Your task to perform on an android device: What is the news today? Image 0: 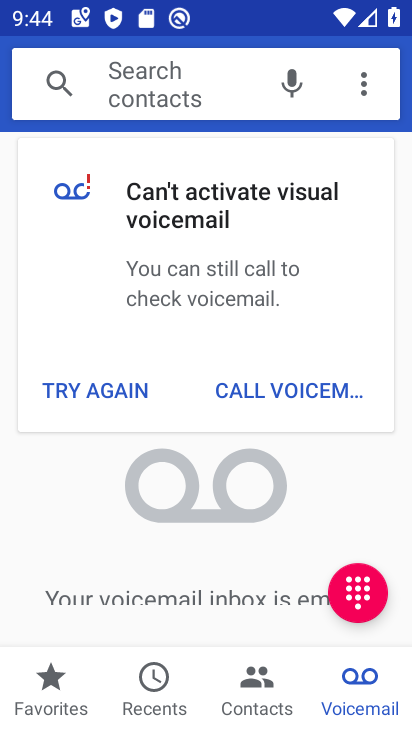
Step 0: press home button
Your task to perform on an android device: What is the news today? Image 1: 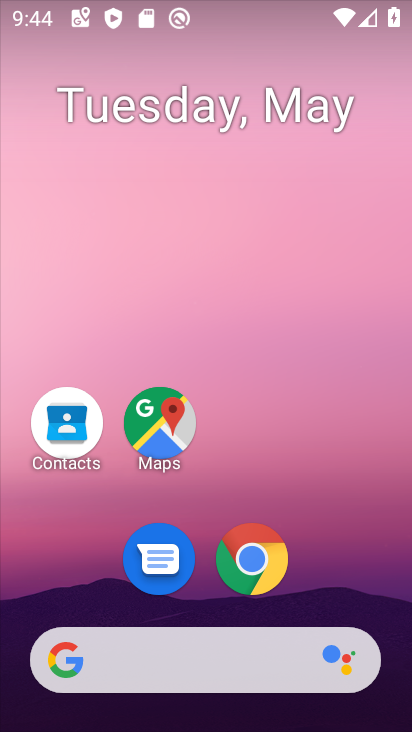
Step 1: click (224, 666)
Your task to perform on an android device: What is the news today? Image 2: 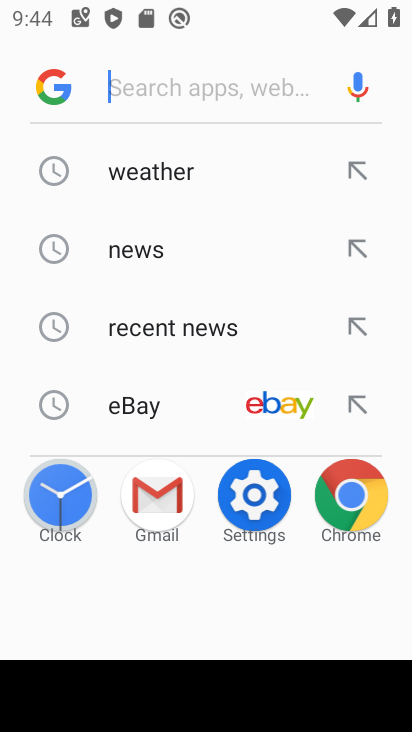
Step 2: click (151, 243)
Your task to perform on an android device: What is the news today? Image 3: 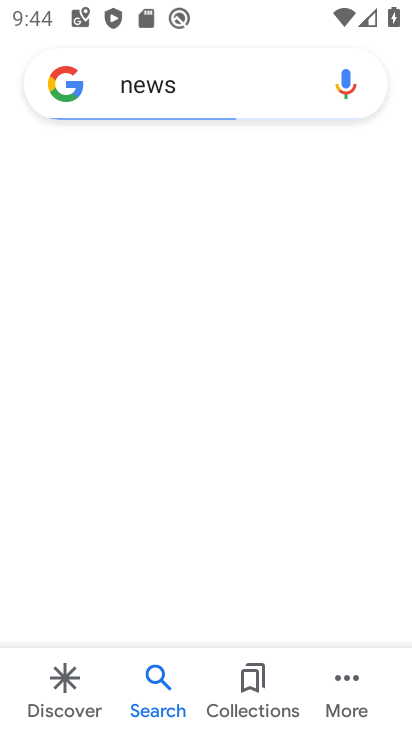
Step 3: task complete